Your task to perform on an android device: turn on showing notifications on the lock screen Image 0: 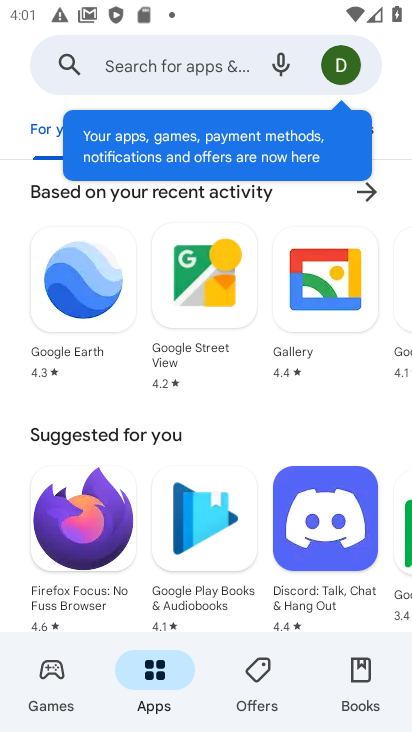
Step 0: press home button
Your task to perform on an android device: turn on showing notifications on the lock screen Image 1: 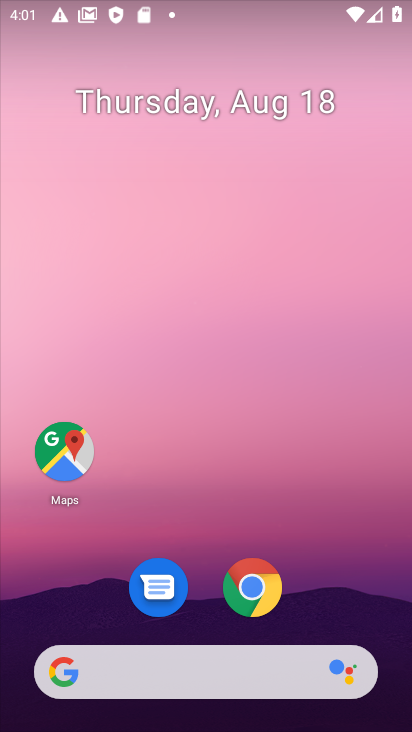
Step 1: drag from (320, 615) to (245, 55)
Your task to perform on an android device: turn on showing notifications on the lock screen Image 2: 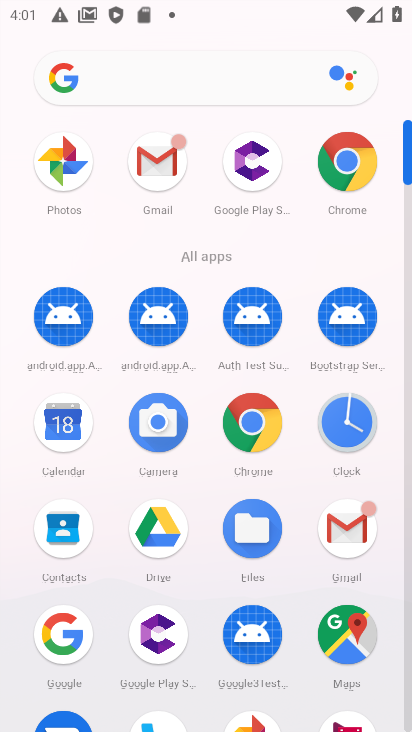
Step 2: click (239, 439)
Your task to perform on an android device: turn on showing notifications on the lock screen Image 3: 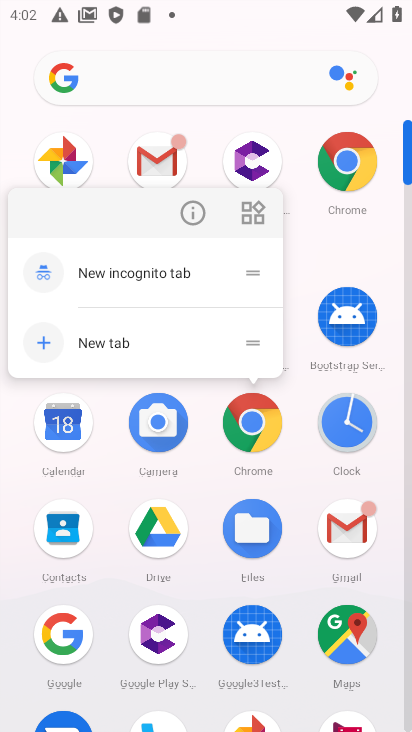
Step 3: click (359, 251)
Your task to perform on an android device: turn on showing notifications on the lock screen Image 4: 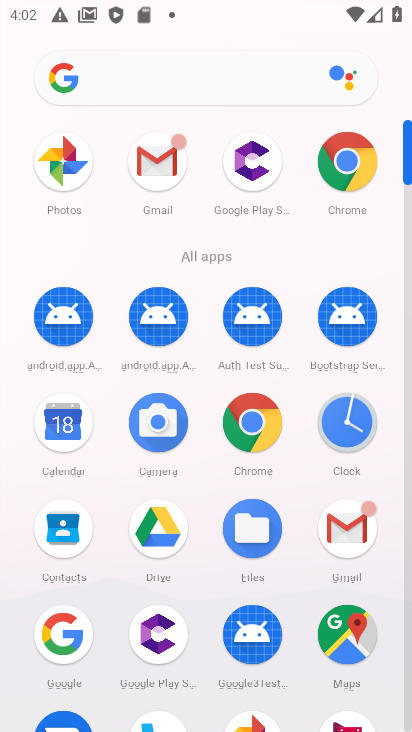
Step 4: drag from (210, 493) to (324, 21)
Your task to perform on an android device: turn on showing notifications on the lock screen Image 5: 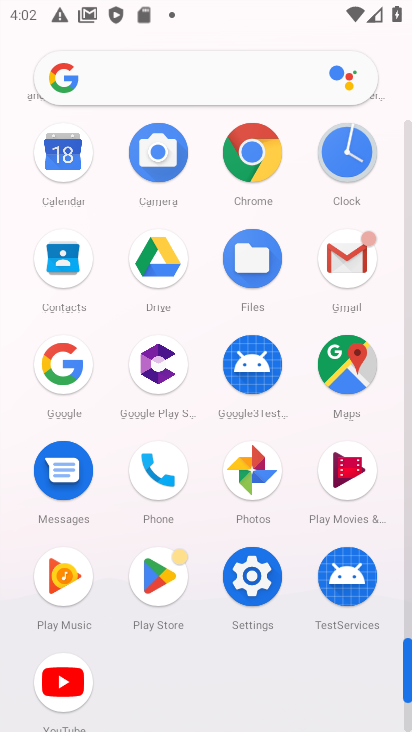
Step 5: click (245, 574)
Your task to perform on an android device: turn on showing notifications on the lock screen Image 6: 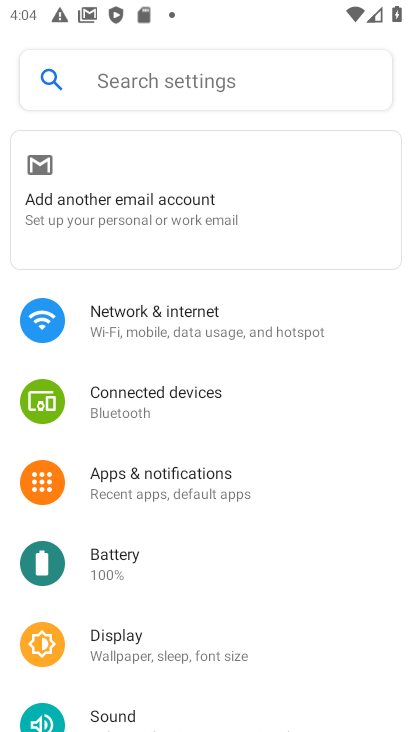
Step 6: click (150, 475)
Your task to perform on an android device: turn on showing notifications on the lock screen Image 7: 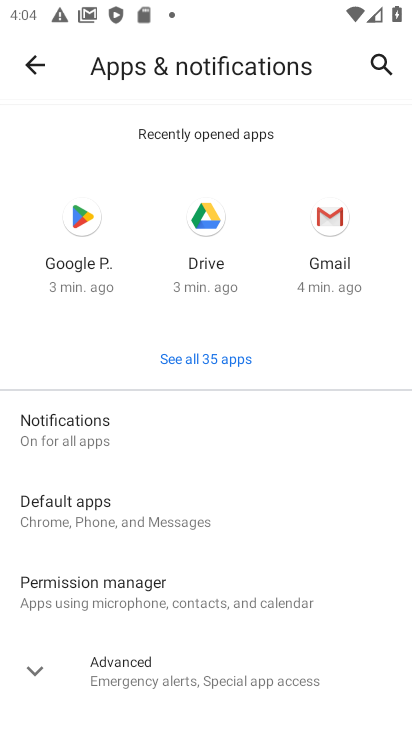
Step 7: click (62, 419)
Your task to perform on an android device: turn on showing notifications on the lock screen Image 8: 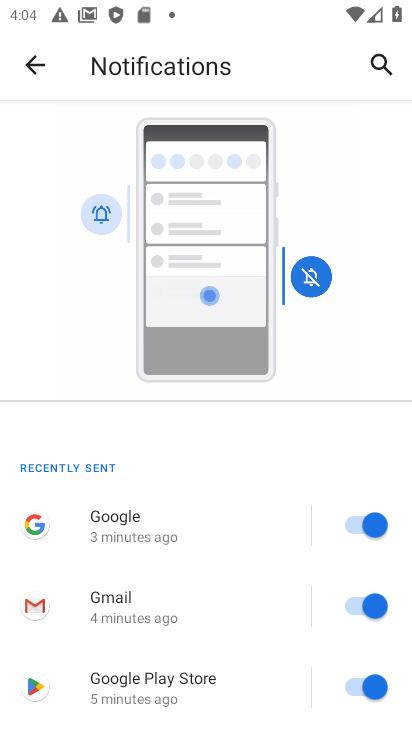
Step 8: drag from (262, 559) to (213, 102)
Your task to perform on an android device: turn on showing notifications on the lock screen Image 9: 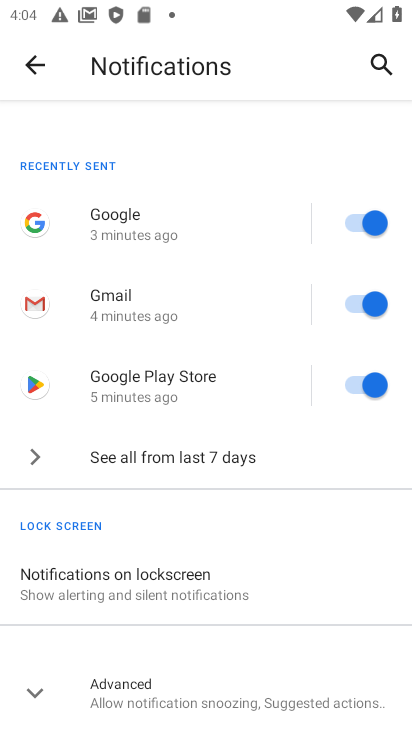
Step 9: click (137, 582)
Your task to perform on an android device: turn on showing notifications on the lock screen Image 10: 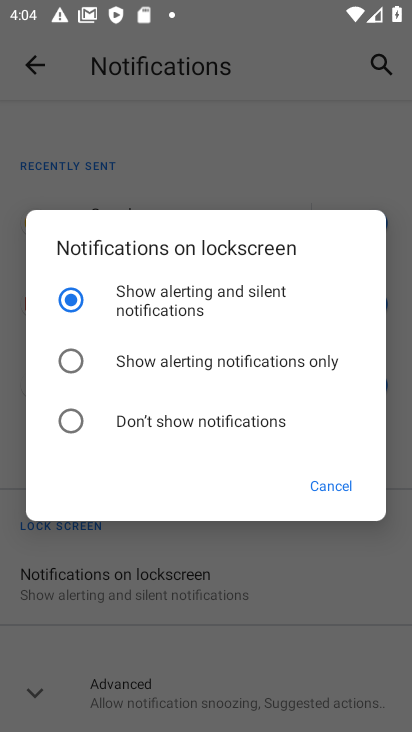
Step 10: task complete